Your task to perform on an android device: turn off translation in the chrome app Image 0: 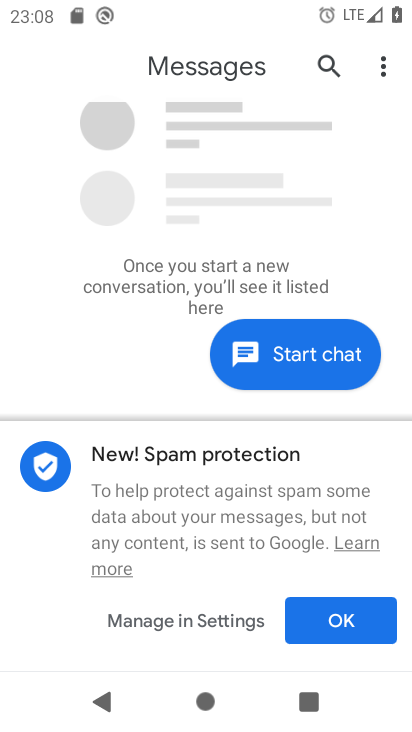
Step 0: press home button
Your task to perform on an android device: turn off translation in the chrome app Image 1: 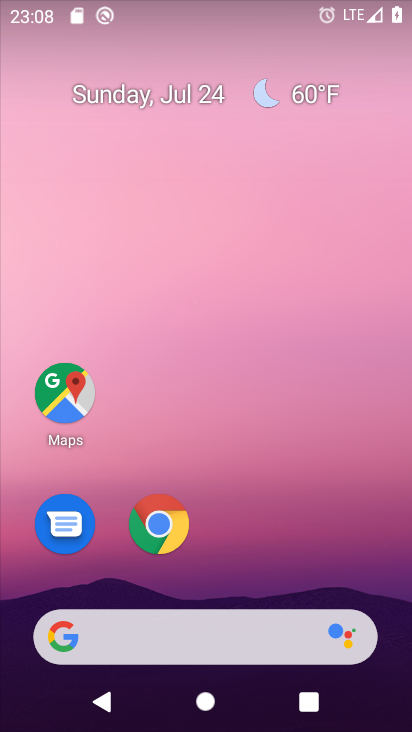
Step 1: click (173, 528)
Your task to perform on an android device: turn off translation in the chrome app Image 2: 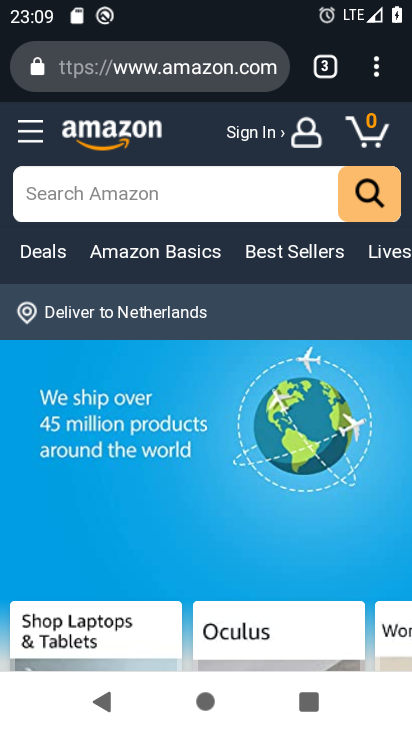
Step 2: click (380, 73)
Your task to perform on an android device: turn off translation in the chrome app Image 3: 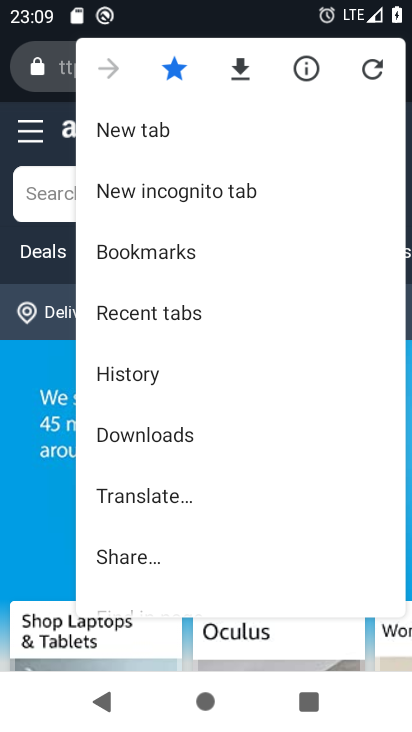
Step 3: drag from (228, 361) to (254, 91)
Your task to perform on an android device: turn off translation in the chrome app Image 4: 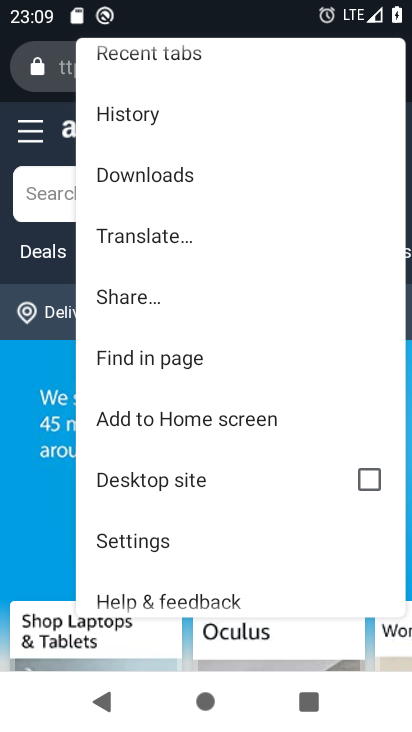
Step 4: click (141, 532)
Your task to perform on an android device: turn off translation in the chrome app Image 5: 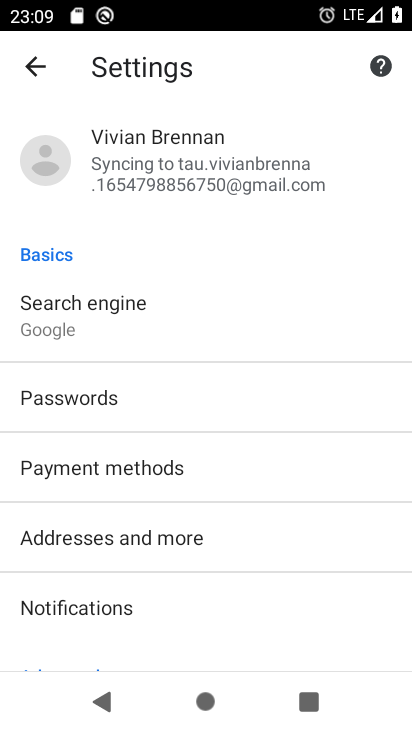
Step 5: drag from (243, 567) to (243, 12)
Your task to perform on an android device: turn off translation in the chrome app Image 6: 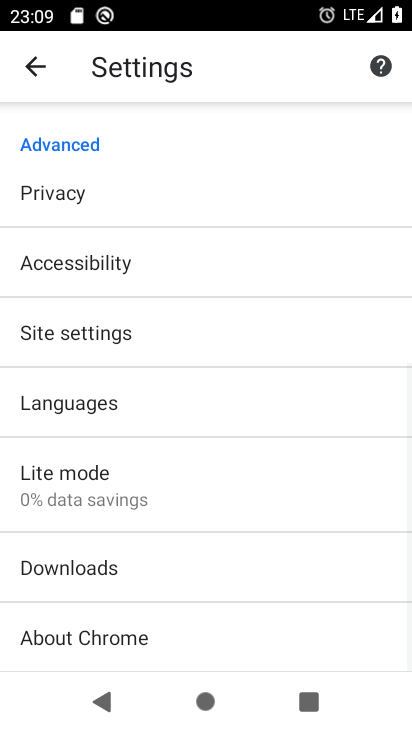
Step 6: click (111, 400)
Your task to perform on an android device: turn off translation in the chrome app Image 7: 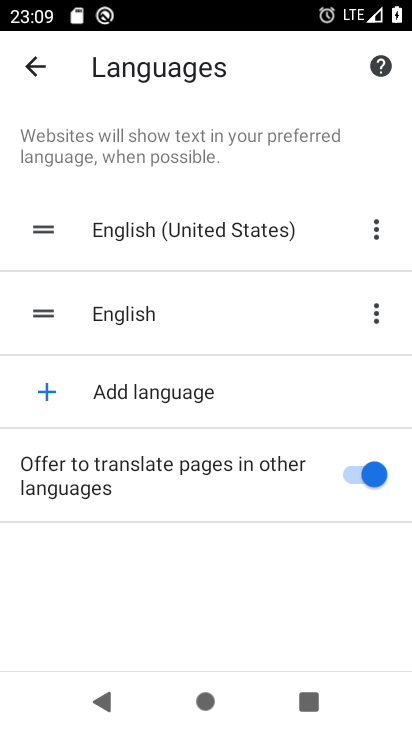
Step 7: click (356, 473)
Your task to perform on an android device: turn off translation in the chrome app Image 8: 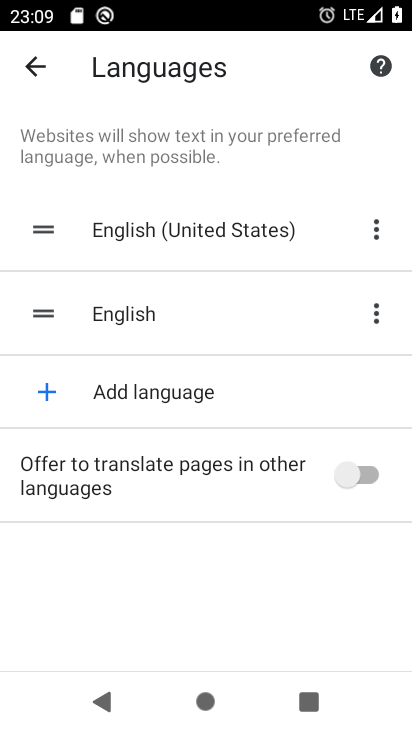
Step 8: task complete